Your task to perform on an android device: open app "Expedia: Hotels, Flights & Car" Image 0: 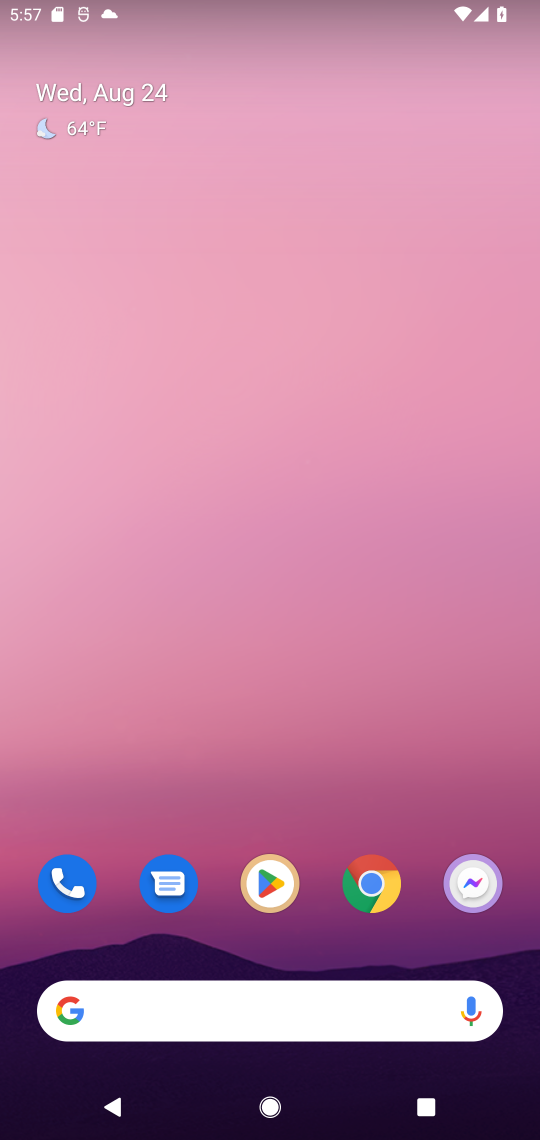
Step 0: drag from (243, 918) to (295, 417)
Your task to perform on an android device: open app "Expedia: Hotels, Flights & Car" Image 1: 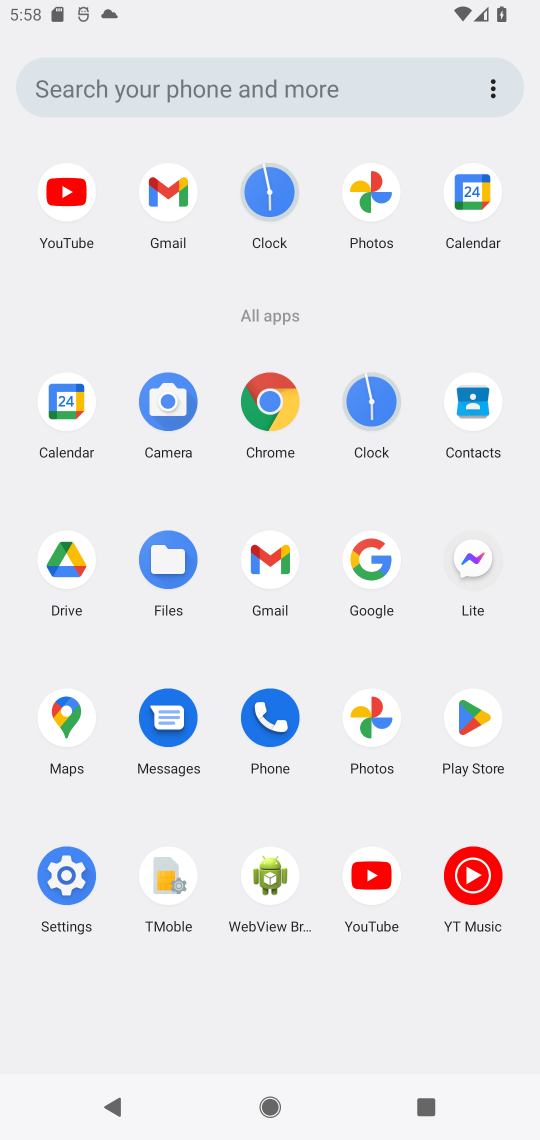
Step 1: click (471, 720)
Your task to perform on an android device: open app "Expedia: Hotels, Flights & Car" Image 2: 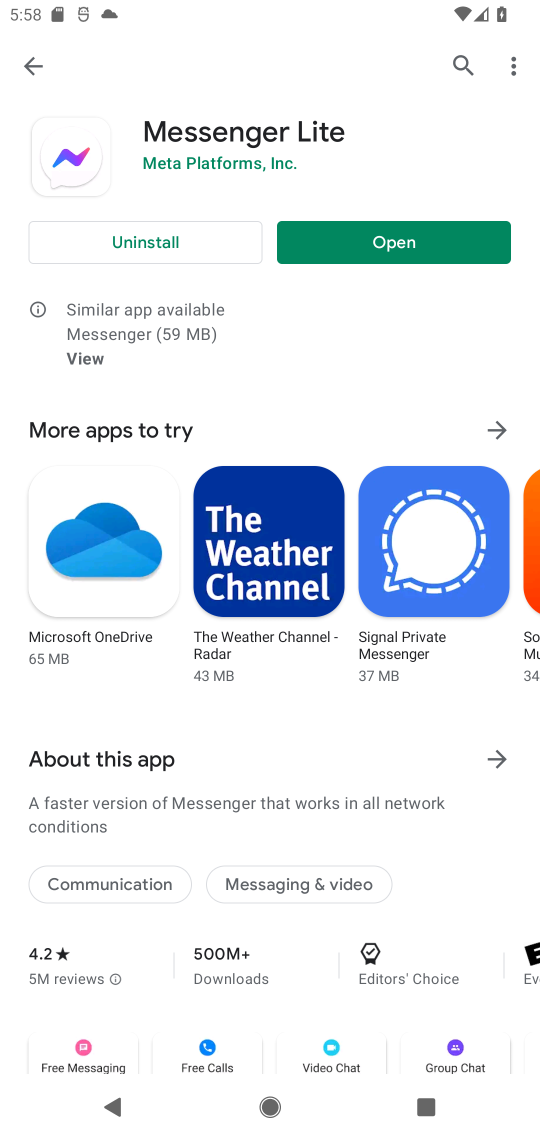
Step 2: click (39, 50)
Your task to perform on an android device: open app "Expedia: Hotels, Flights & Car" Image 3: 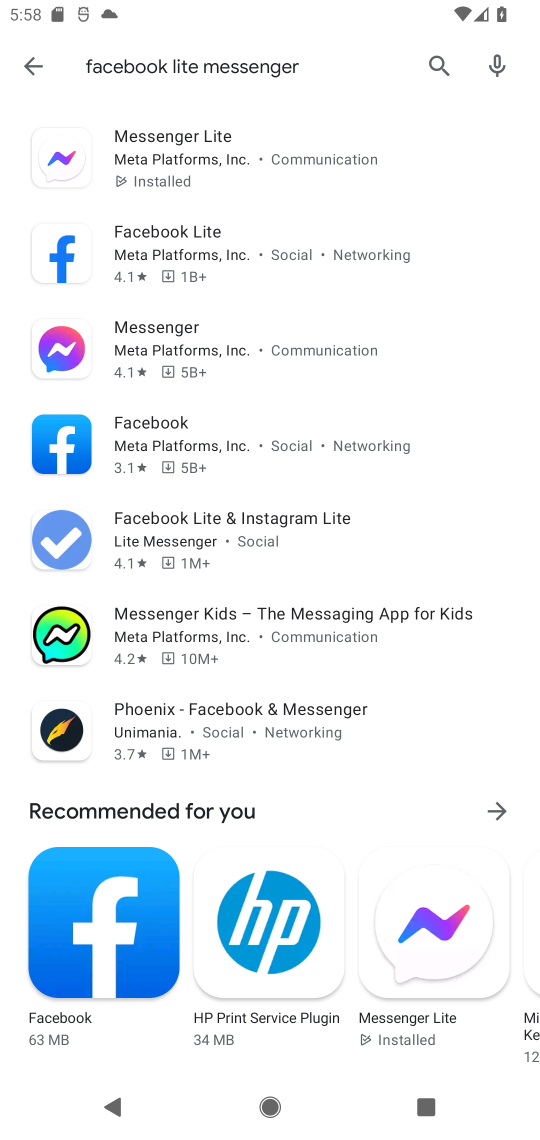
Step 3: click (434, 65)
Your task to perform on an android device: open app "Expedia: Hotels, Flights & Car" Image 4: 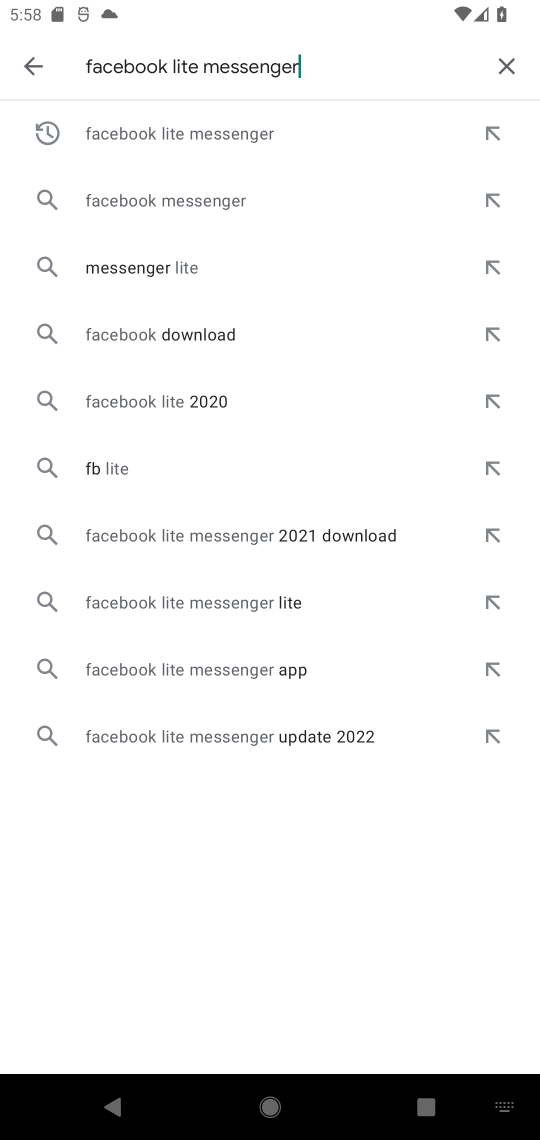
Step 4: click (14, 60)
Your task to perform on an android device: open app "Expedia: Hotels, Flights & Car" Image 5: 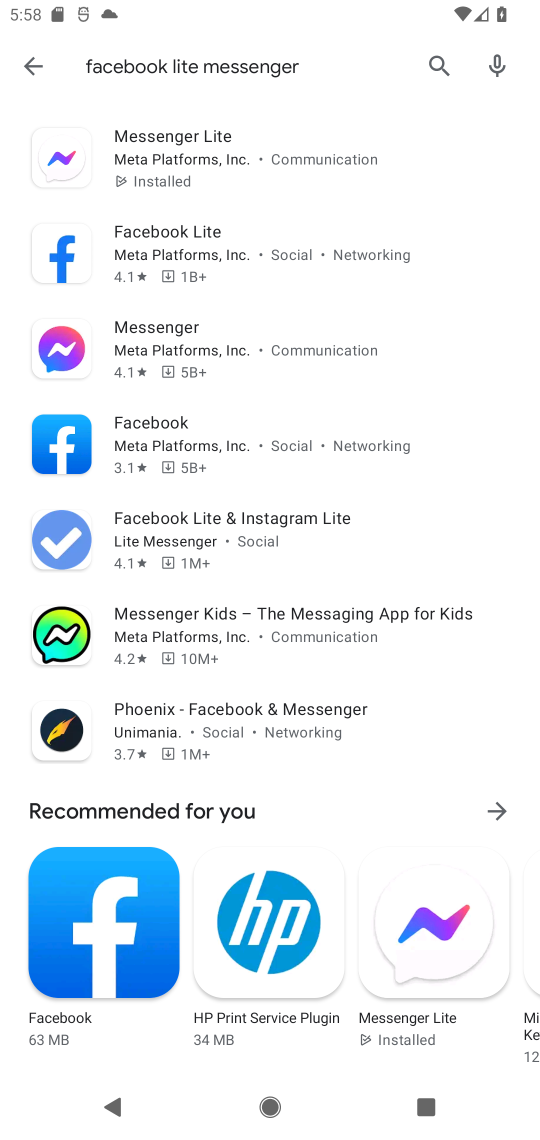
Step 5: click (436, 58)
Your task to perform on an android device: open app "Expedia: Hotels, Flights & Car" Image 6: 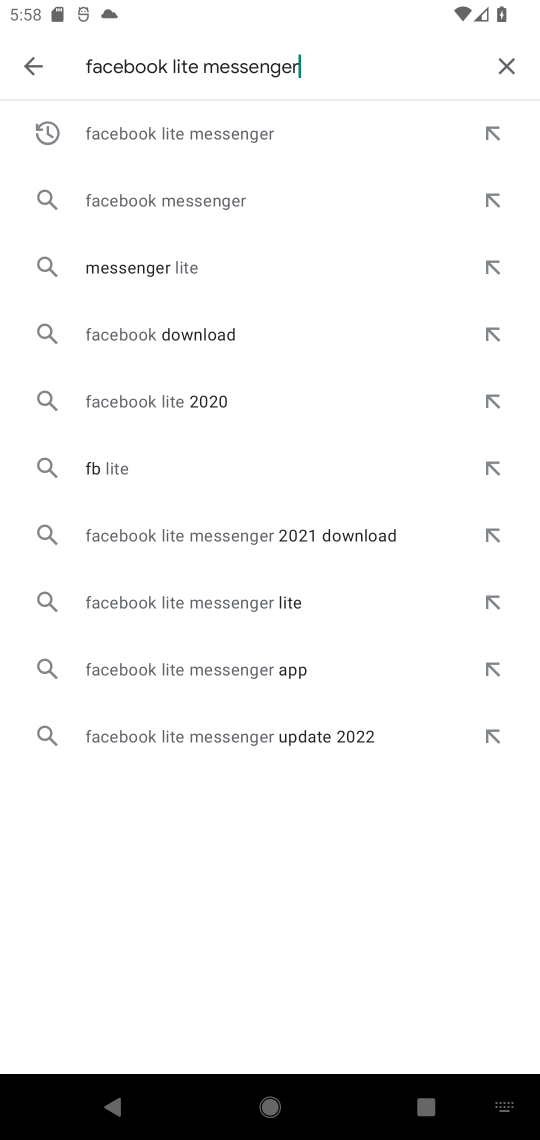
Step 6: click (510, 57)
Your task to perform on an android device: open app "Expedia: Hotels, Flights & Car" Image 7: 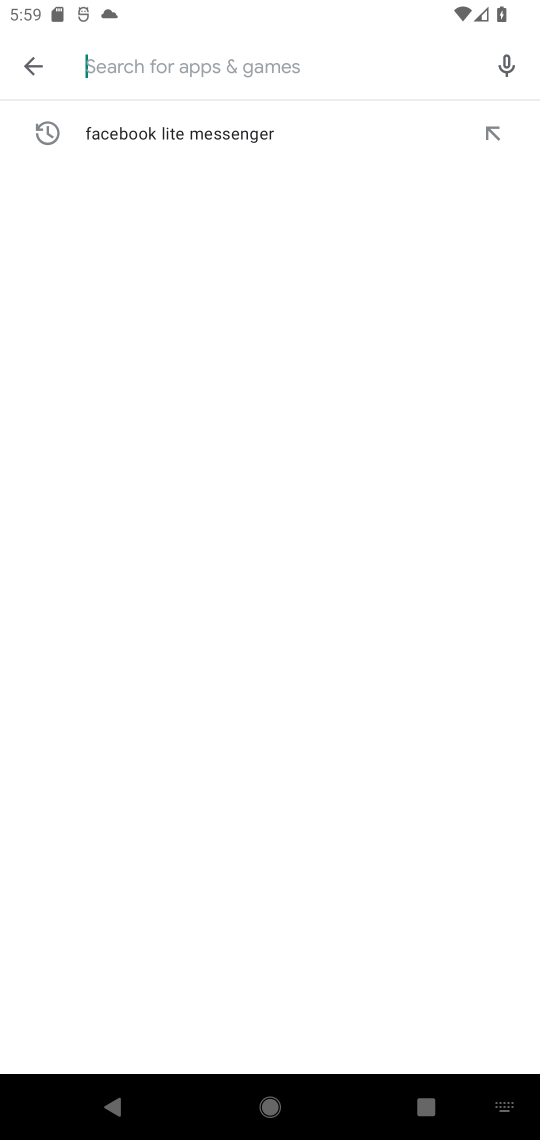
Step 7: click (177, 65)
Your task to perform on an android device: open app "Expedia: Hotels, Flights & Car" Image 8: 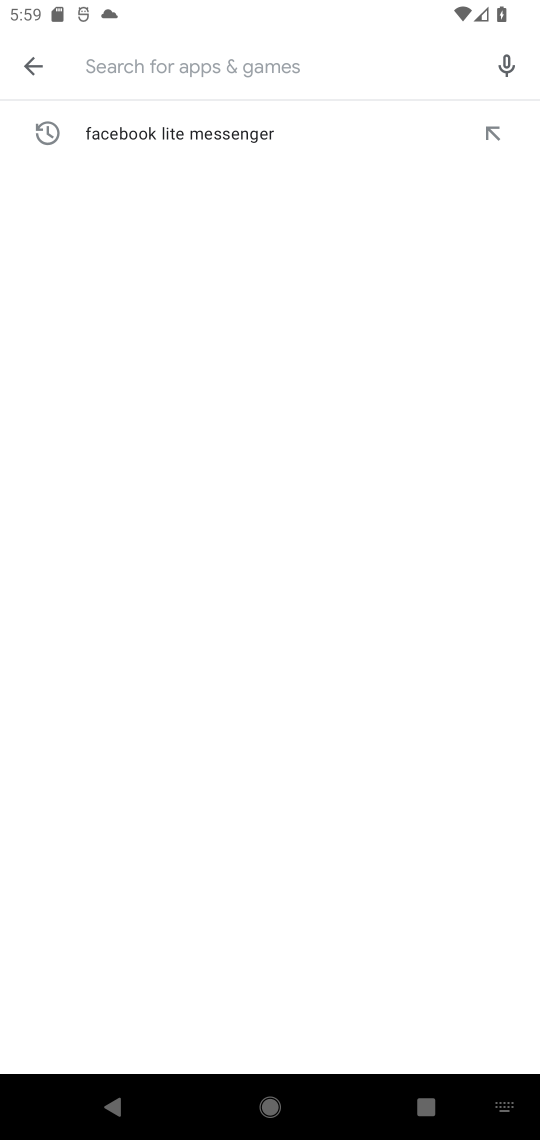
Step 8: type "Expedia: Hotels, Flights & Car "
Your task to perform on an android device: open app "Expedia: Hotels, Flights & Car" Image 9: 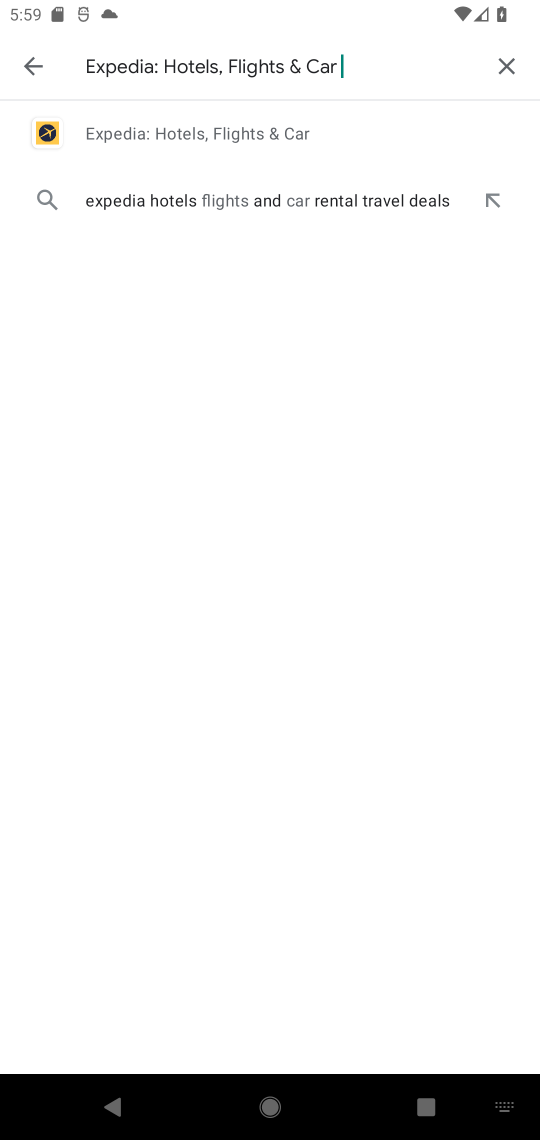
Step 9: click (88, 122)
Your task to perform on an android device: open app "Expedia: Hotels, Flights & Car" Image 10: 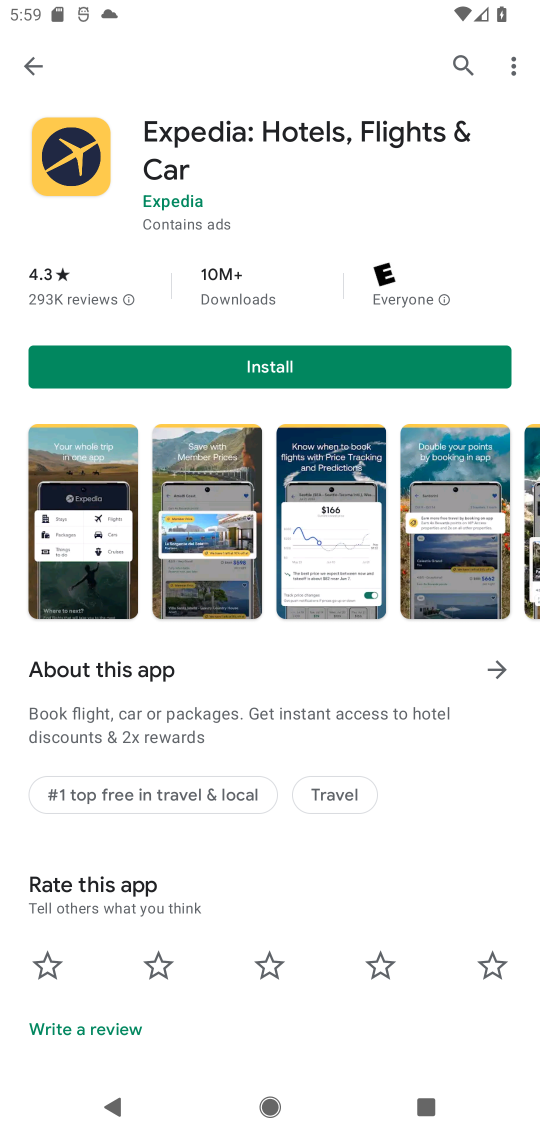
Step 10: click (277, 359)
Your task to perform on an android device: open app "Expedia: Hotels, Flights & Car" Image 11: 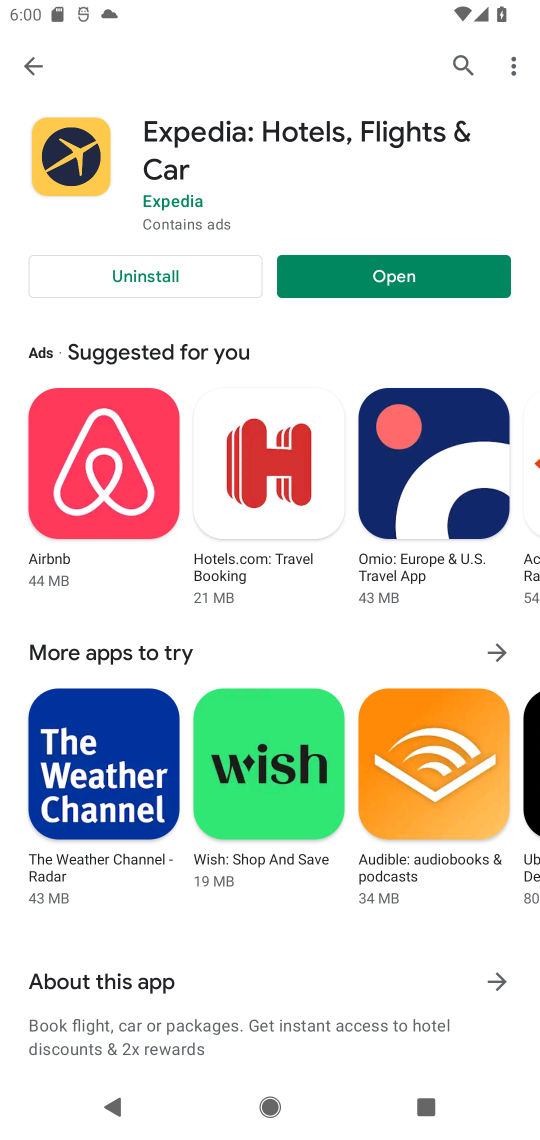
Step 11: task complete